Your task to perform on an android device: Open network settings Image 0: 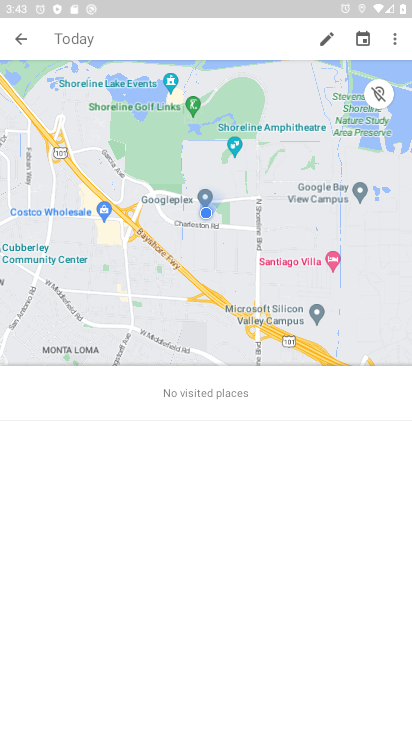
Step 0: press home button
Your task to perform on an android device: Open network settings Image 1: 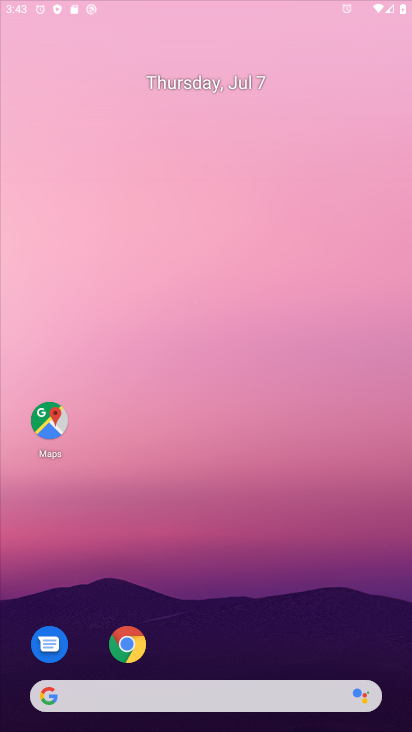
Step 1: drag from (199, 562) to (203, 56)
Your task to perform on an android device: Open network settings Image 2: 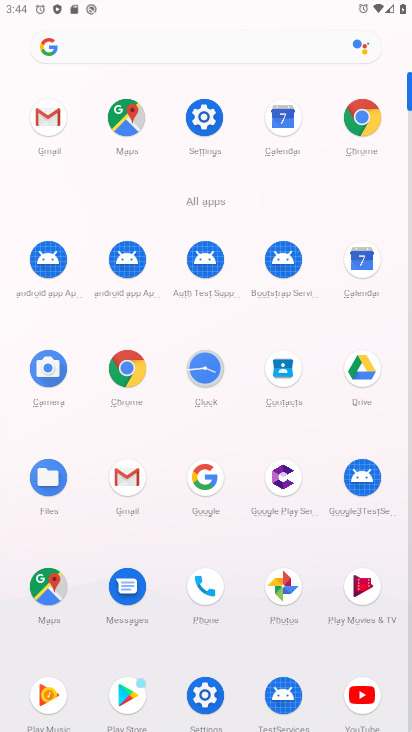
Step 2: click (209, 124)
Your task to perform on an android device: Open network settings Image 3: 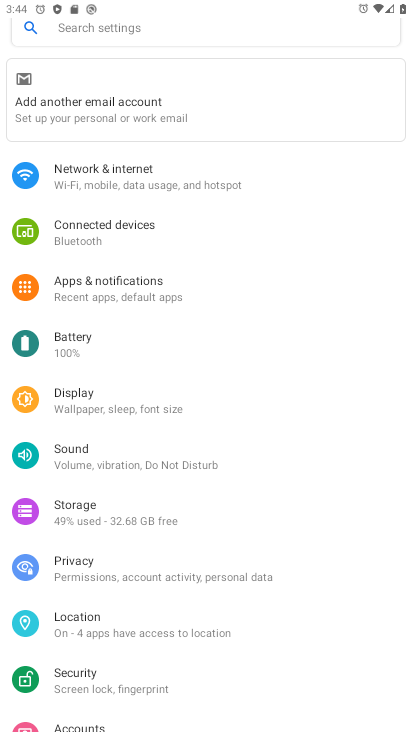
Step 3: click (87, 167)
Your task to perform on an android device: Open network settings Image 4: 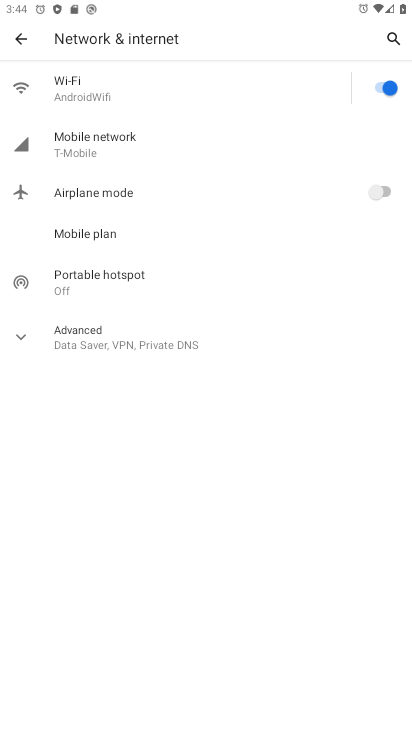
Step 4: task complete